Your task to perform on an android device: Open Google Maps Image 0: 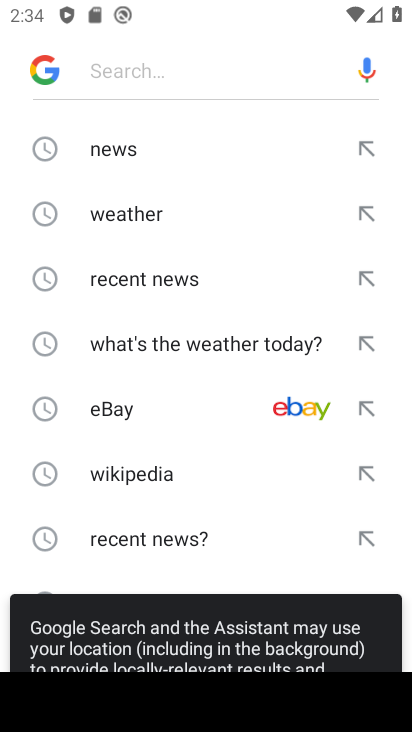
Step 0: press back button
Your task to perform on an android device: Open Google Maps Image 1: 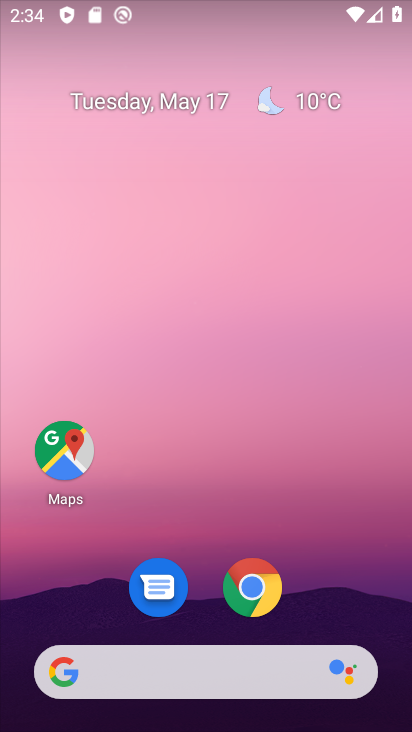
Step 1: press back button
Your task to perform on an android device: Open Google Maps Image 2: 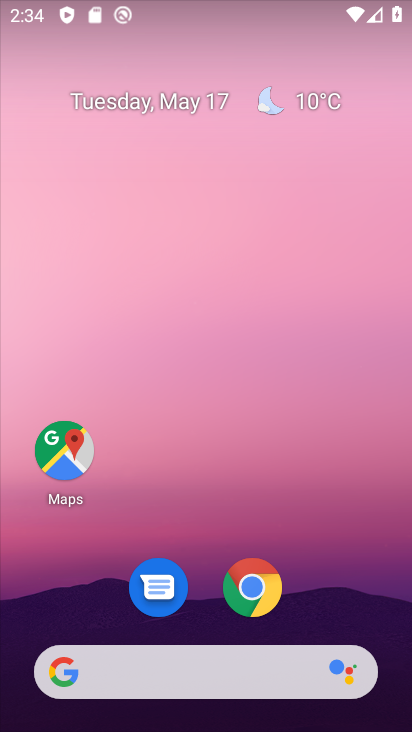
Step 2: drag from (368, 586) to (225, 10)
Your task to perform on an android device: Open Google Maps Image 3: 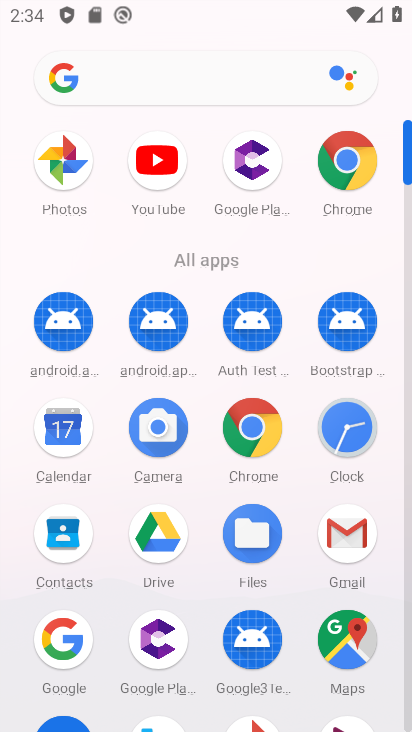
Step 3: drag from (19, 517) to (20, 231)
Your task to perform on an android device: Open Google Maps Image 4: 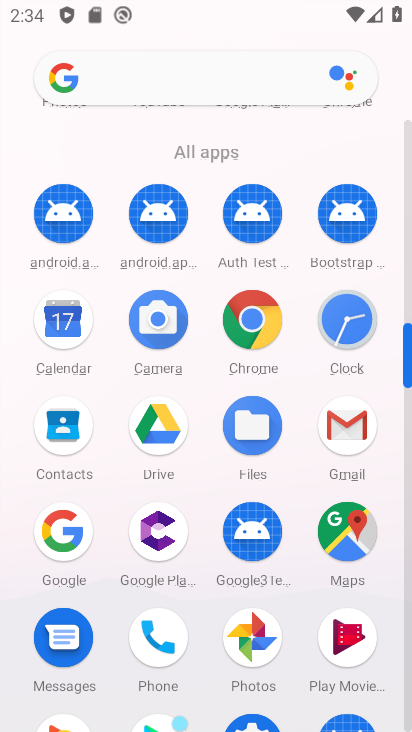
Step 4: click (345, 528)
Your task to perform on an android device: Open Google Maps Image 5: 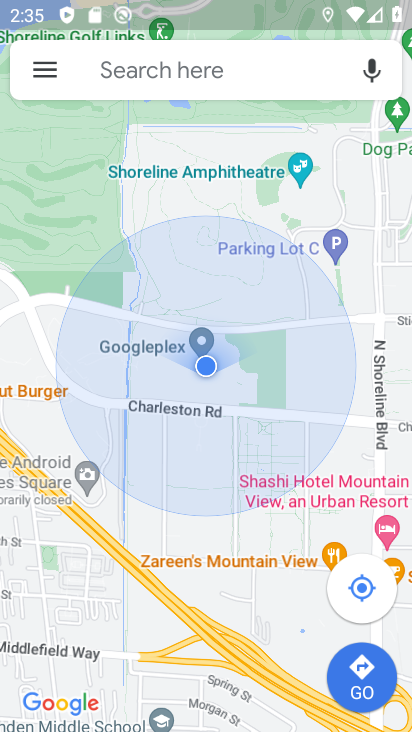
Step 5: task complete